Your task to perform on an android device: turn on data saver in the chrome app Image 0: 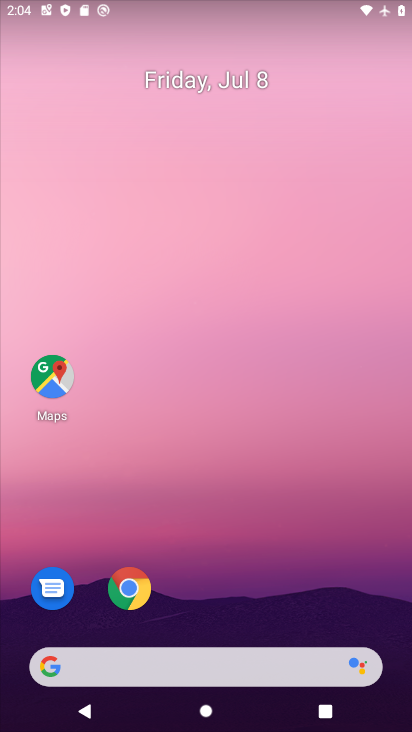
Step 0: drag from (205, 628) to (186, 103)
Your task to perform on an android device: turn on data saver in the chrome app Image 1: 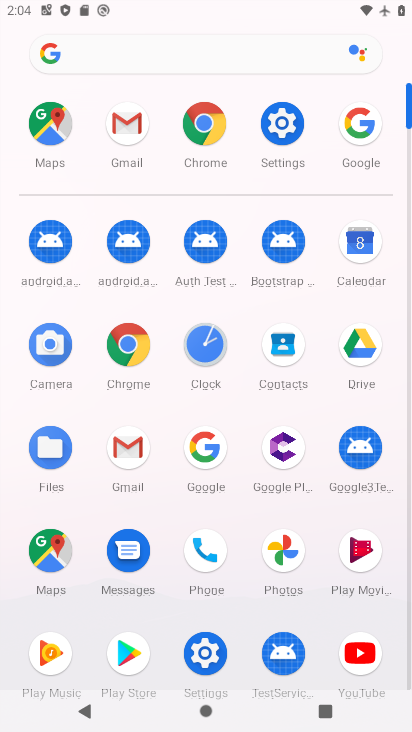
Step 1: click (208, 128)
Your task to perform on an android device: turn on data saver in the chrome app Image 2: 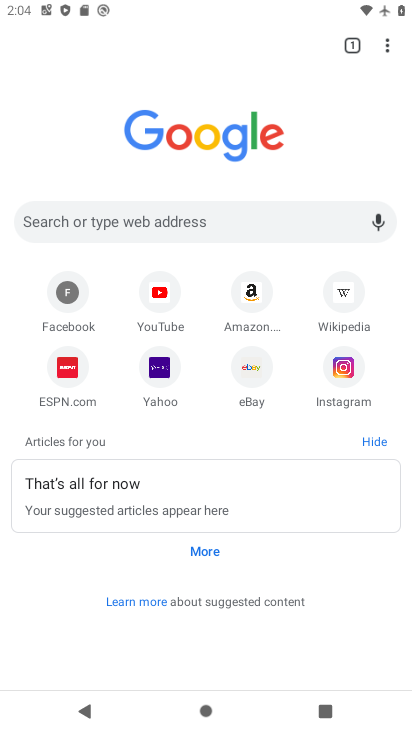
Step 2: drag from (390, 43) to (235, 372)
Your task to perform on an android device: turn on data saver in the chrome app Image 3: 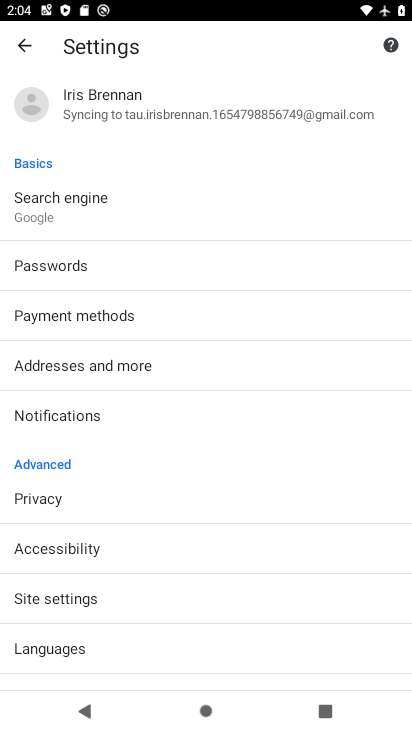
Step 3: drag from (214, 640) to (194, 300)
Your task to perform on an android device: turn on data saver in the chrome app Image 4: 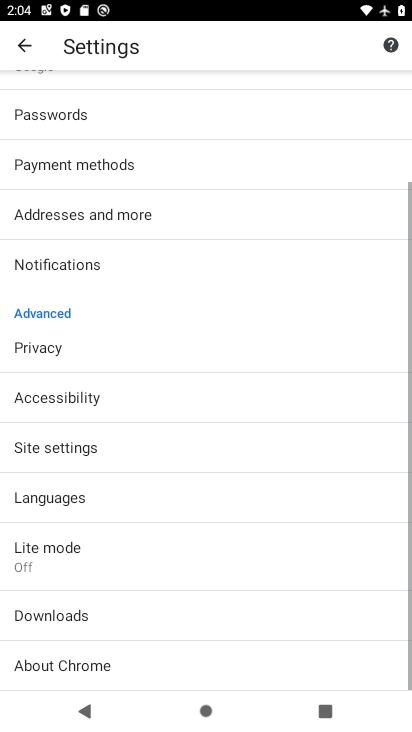
Step 4: click (67, 551)
Your task to perform on an android device: turn on data saver in the chrome app Image 5: 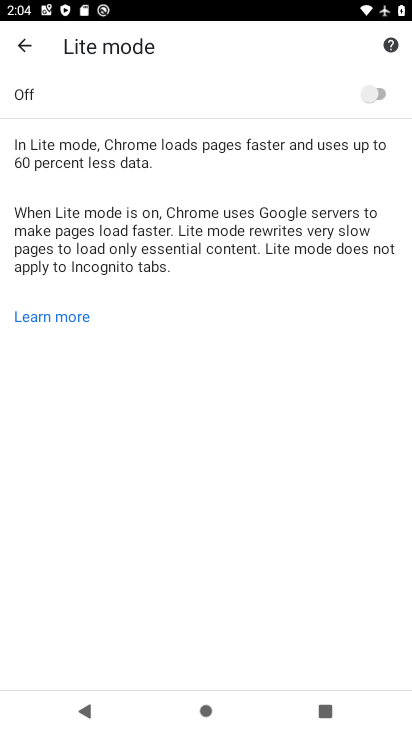
Step 5: click (378, 99)
Your task to perform on an android device: turn on data saver in the chrome app Image 6: 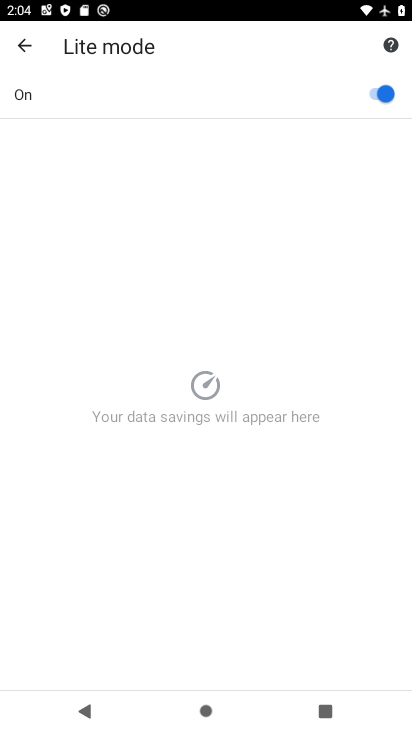
Step 6: task complete